Your task to perform on an android device: Open Google Chrome and click the shortcut for Amazon.com Image 0: 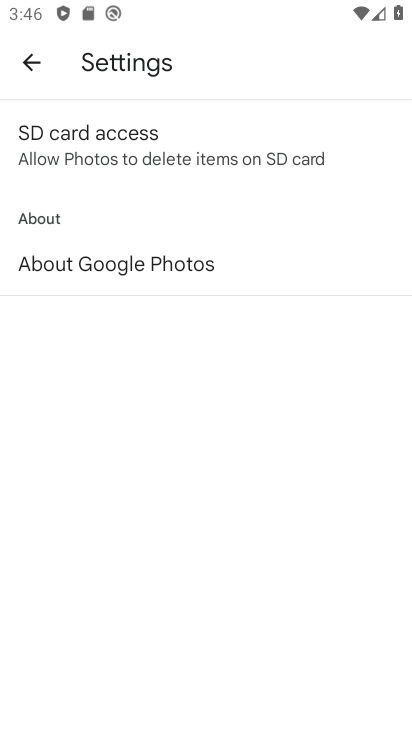
Step 0: press home button
Your task to perform on an android device: Open Google Chrome and click the shortcut for Amazon.com Image 1: 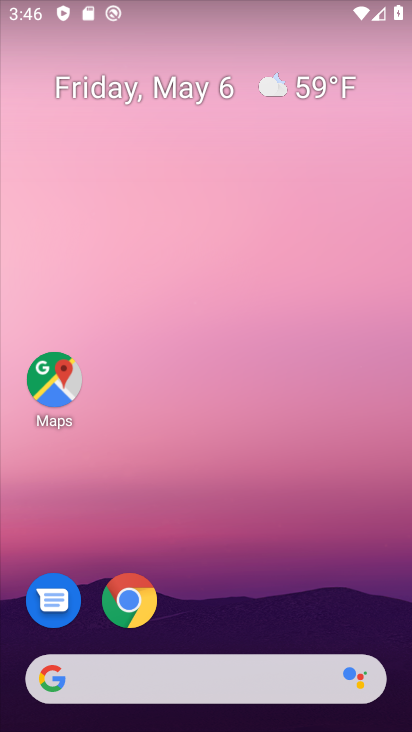
Step 1: click (130, 606)
Your task to perform on an android device: Open Google Chrome and click the shortcut for Amazon.com Image 2: 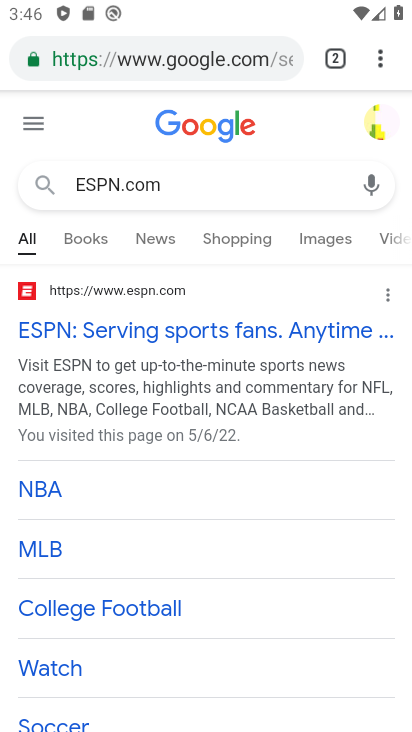
Step 2: click (373, 54)
Your task to perform on an android device: Open Google Chrome and click the shortcut for Amazon.com Image 3: 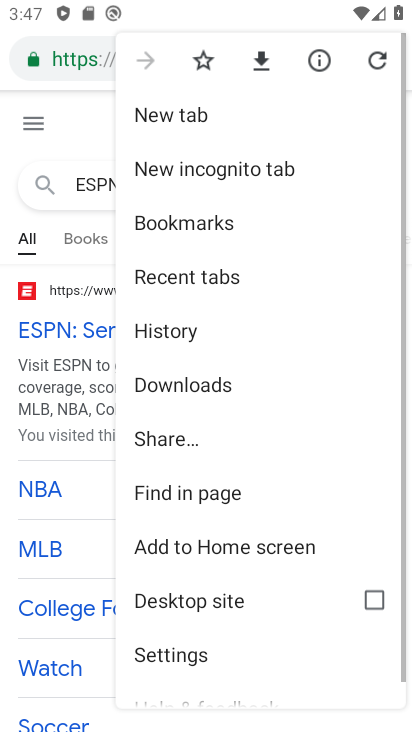
Step 3: click (169, 128)
Your task to perform on an android device: Open Google Chrome and click the shortcut for Amazon.com Image 4: 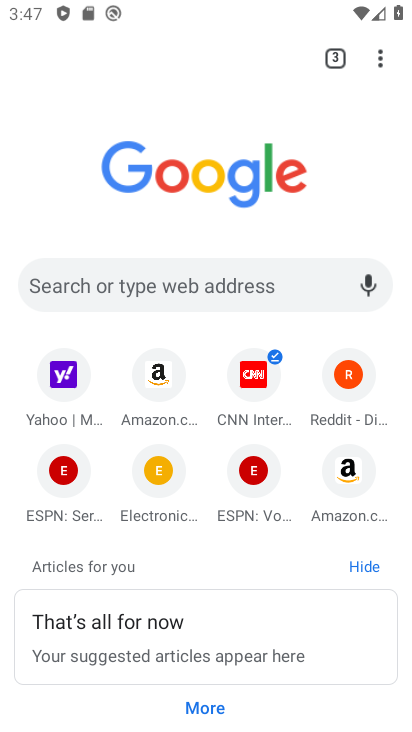
Step 4: click (170, 393)
Your task to perform on an android device: Open Google Chrome and click the shortcut for Amazon.com Image 5: 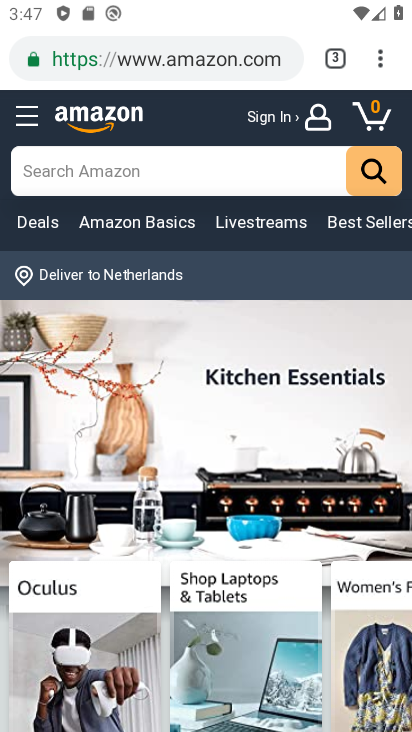
Step 5: task complete